Your task to perform on an android device: What's on my calendar today? Image 0: 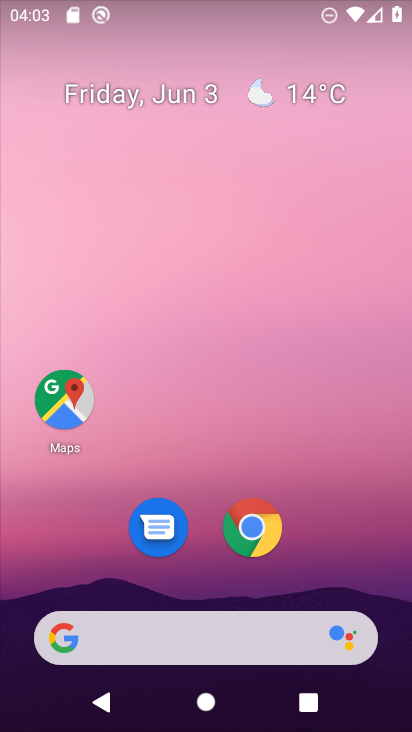
Step 0: drag from (329, 564) to (169, 48)
Your task to perform on an android device: What's on my calendar today? Image 1: 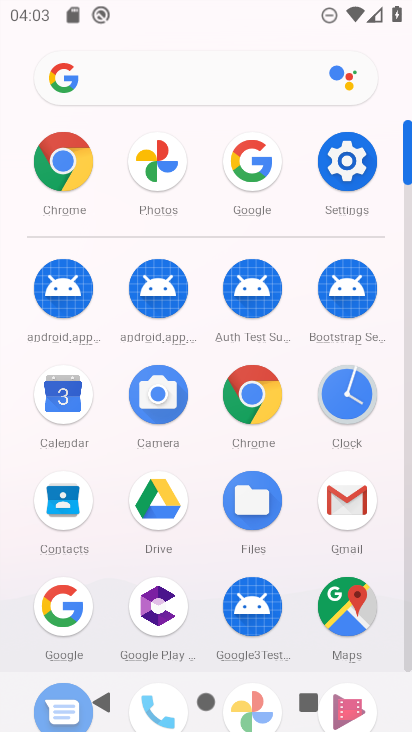
Step 1: click (66, 396)
Your task to perform on an android device: What's on my calendar today? Image 2: 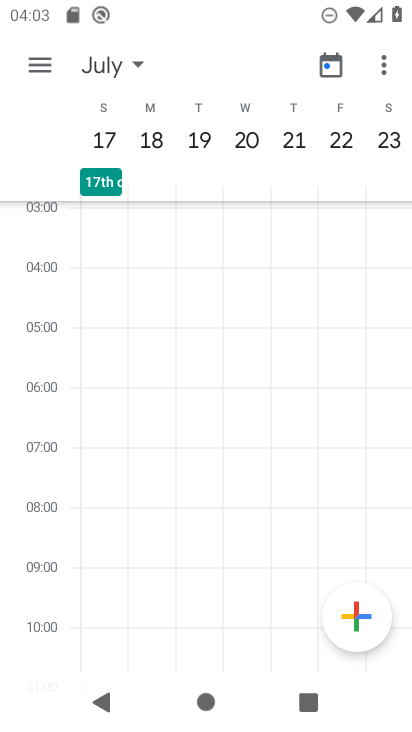
Step 2: click (331, 68)
Your task to perform on an android device: What's on my calendar today? Image 3: 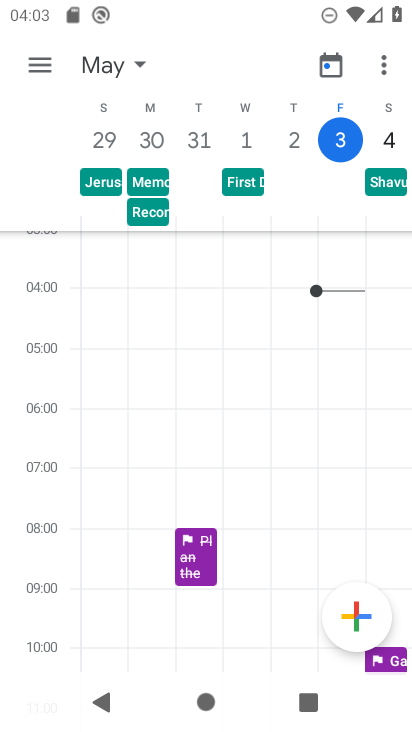
Step 3: click (144, 63)
Your task to perform on an android device: What's on my calendar today? Image 4: 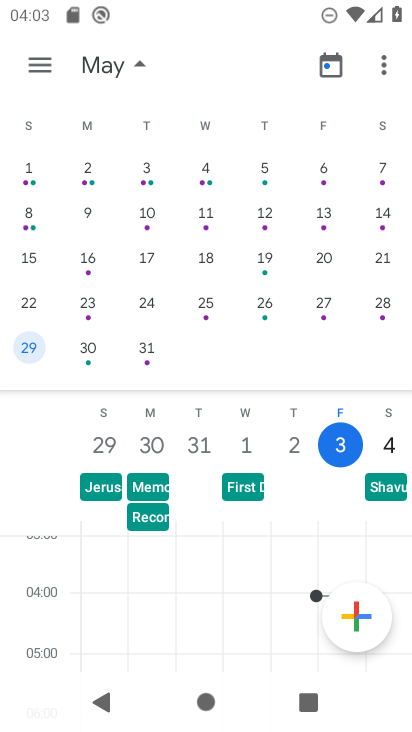
Step 4: click (337, 64)
Your task to perform on an android device: What's on my calendar today? Image 5: 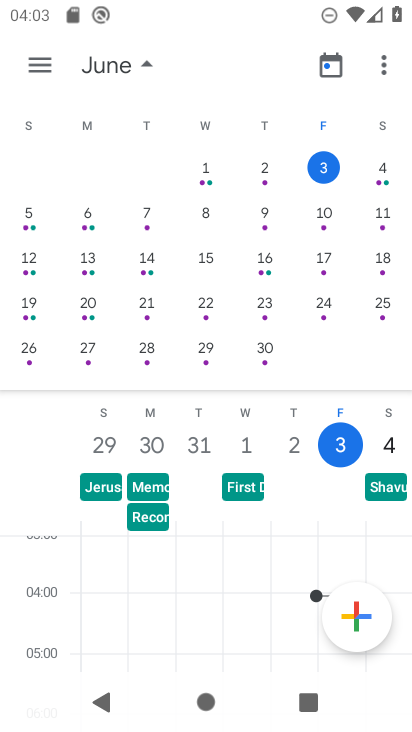
Step 5: click (333, 167)
Your task to perform on an android device: What's on my calendar today? Image 6: 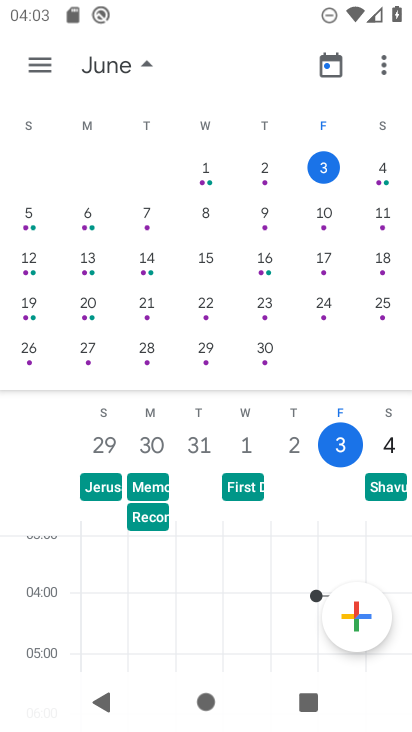
Step 6: click (49, 76)
Your task to perform on an android device: What's on my calendar today? Image 7: 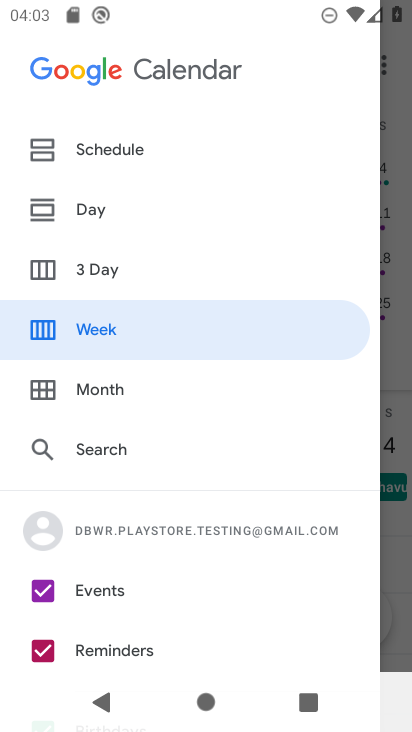
Step 7: click (109, 213)
Your task to perform on an android device: What's on my calendar today? Image 8: 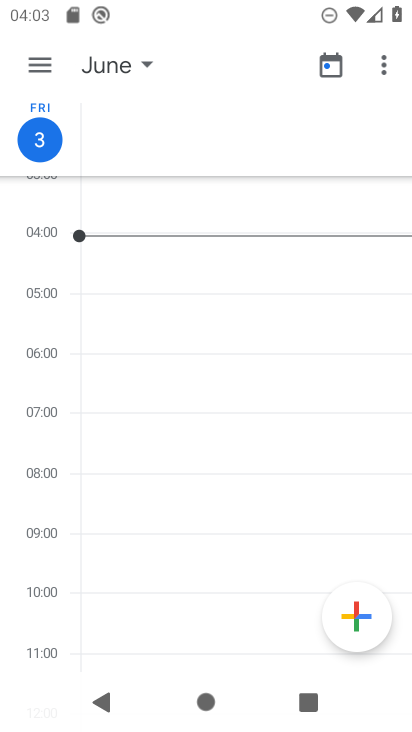
Step 8: task complete